Your task to perform on an android device: What's the latest video from Game Informer? Image 0: 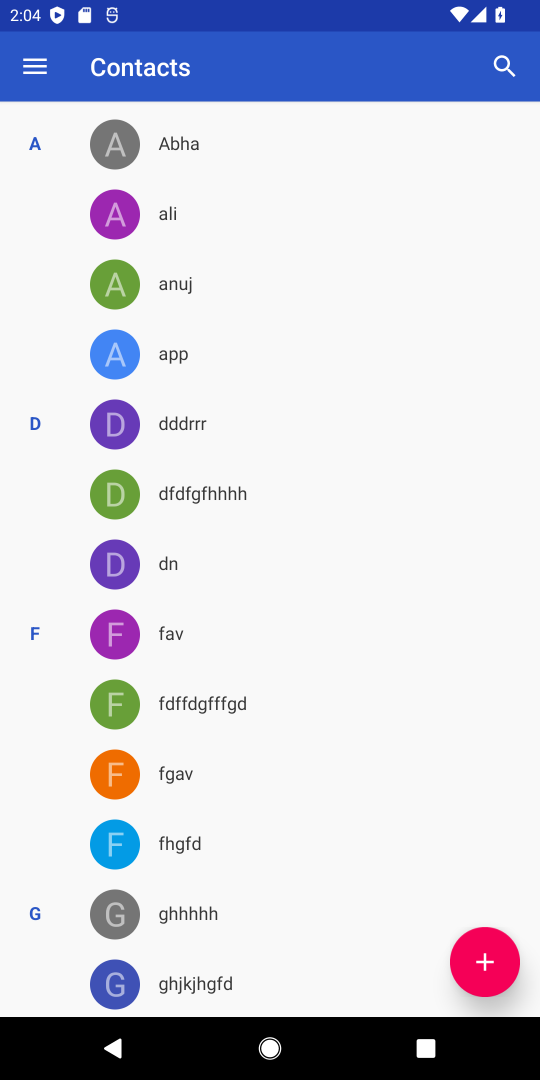
Step 0: press home button
Your task to perform on an android device: What's the latest video from Game Informer? Image 1: 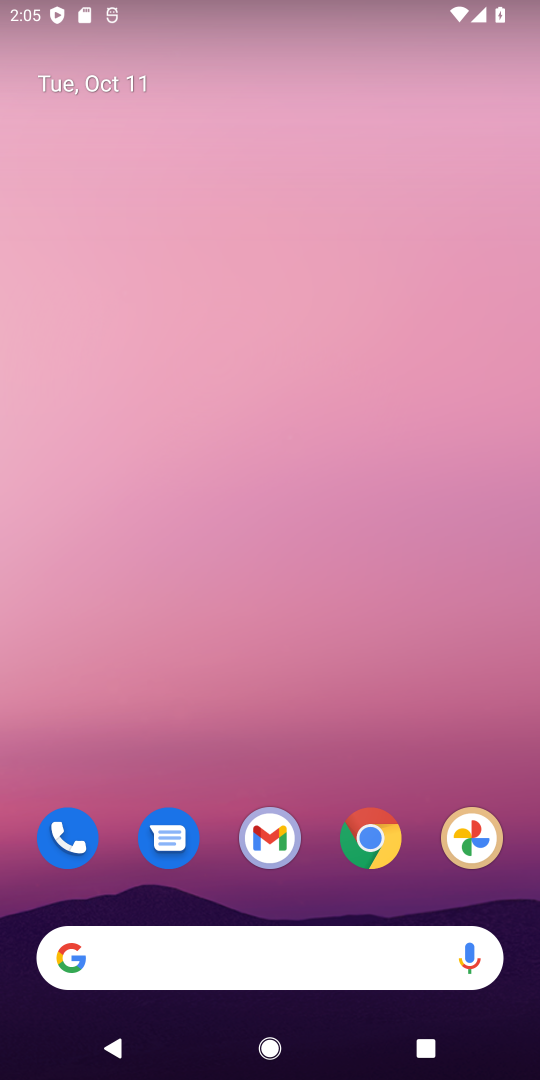
Step 1: click (368, 830)
Your task to perform on an android device: What's the latest video from Game Informer? Image 2: 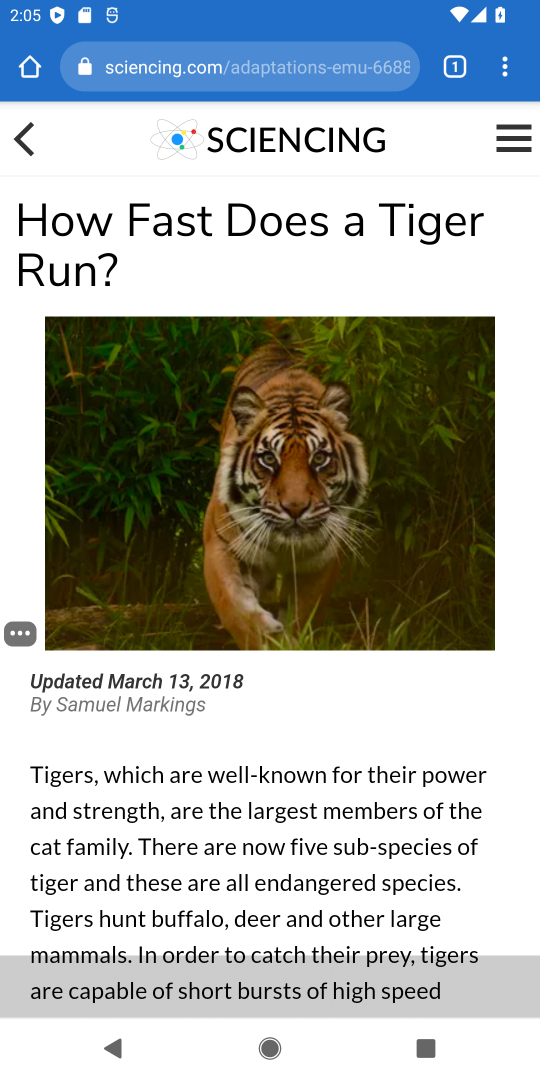
Step 2: click (216, 71)
Your task to perform on an android device: What's the latest video from Game Informer? Image 3: 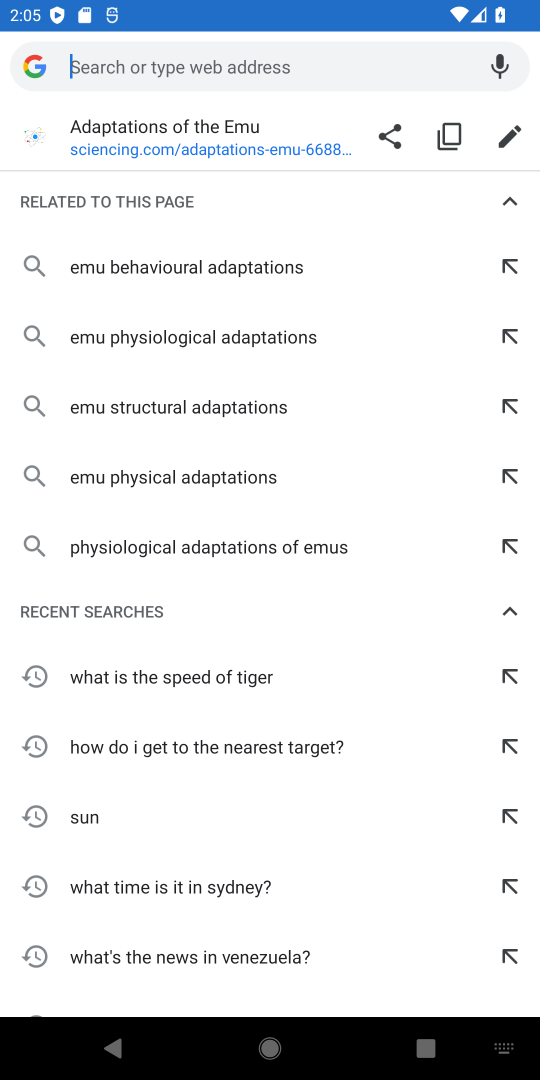
Step 3: type "what is the latest video from game informer"
Your task to perform on an android device: What's the latest video from Game Informer? Image 4: 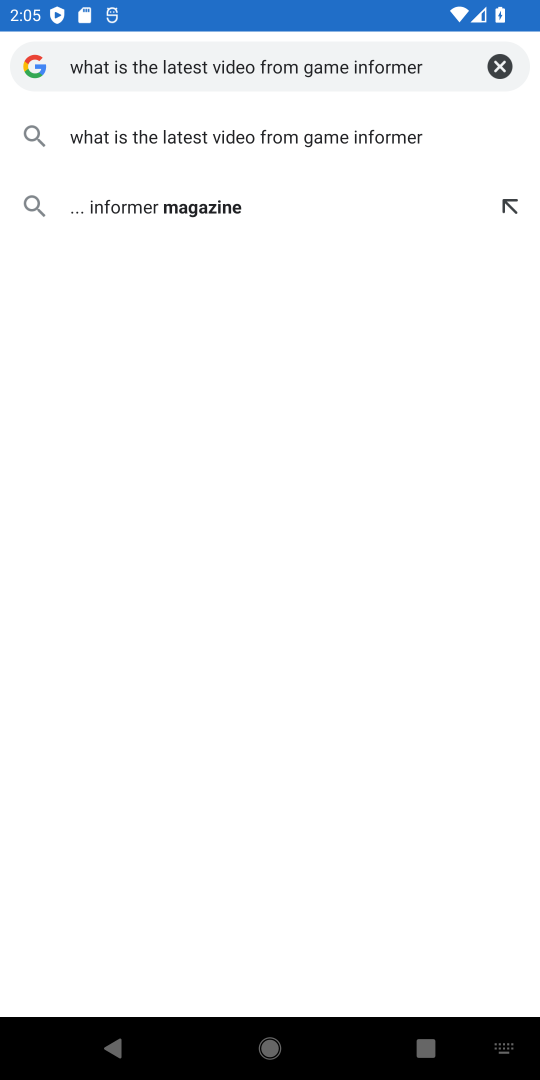
Step 4: click (202, 133)
Your task to perform on an android device: What's the latest video from Game Informer? Image 5: 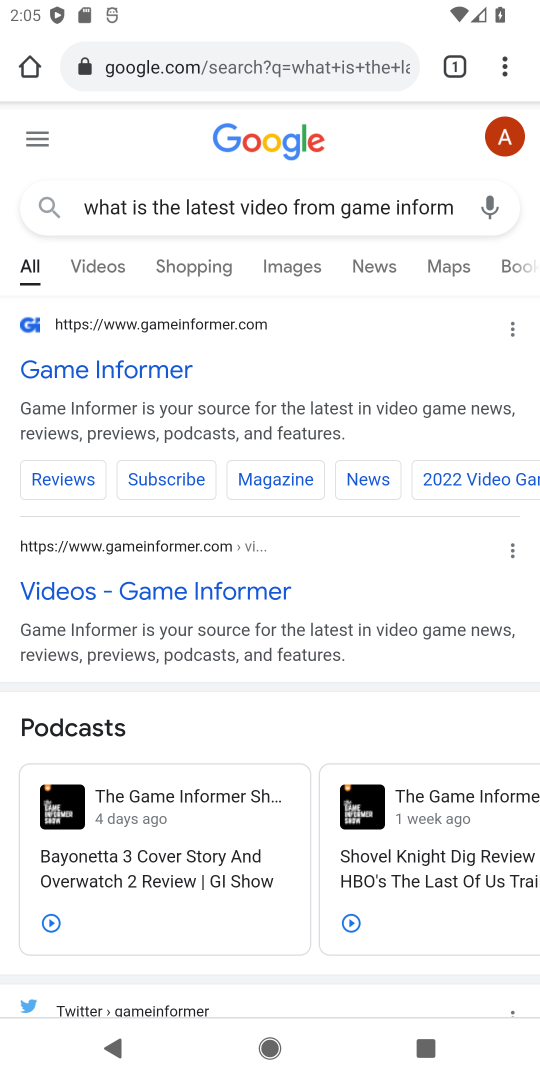
Step 5: drag from (203, 742) to (209, 317)
Your task to perform on an android device: What's the latest video from Game Informer? Image 6: 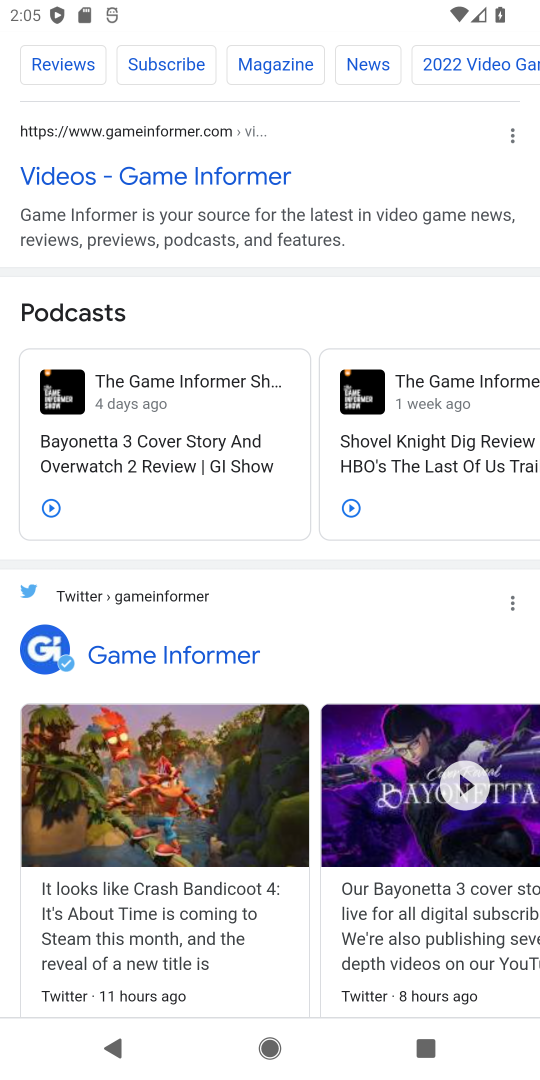
Step 6: click (158, 173)
Your task to perform on an android device: What's the latest video from Game Informer? Image 7: 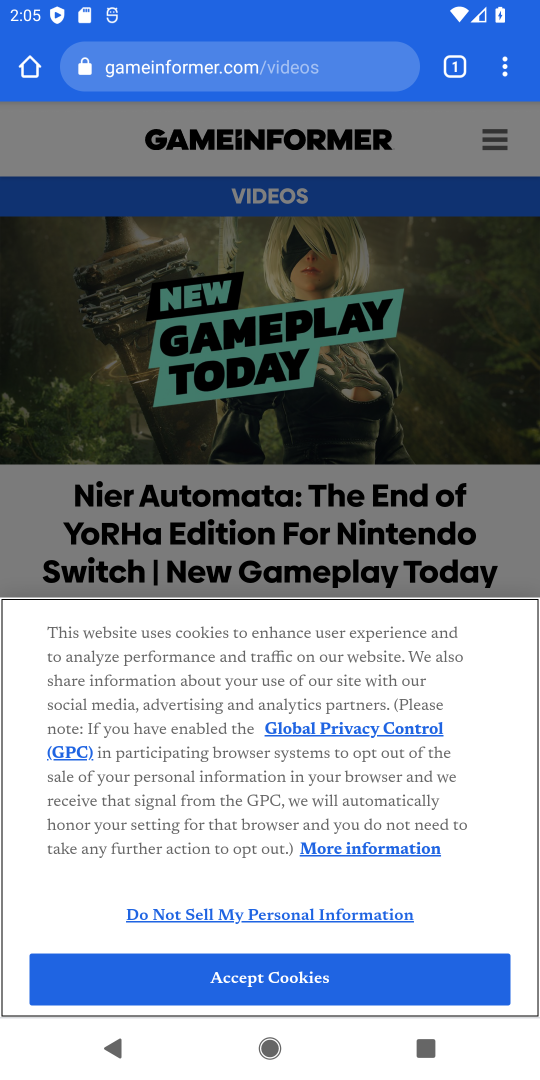
Step 7: click (274, 985)
Your task to perform on an android device: What's the latest video from Game Informer? Image 8: 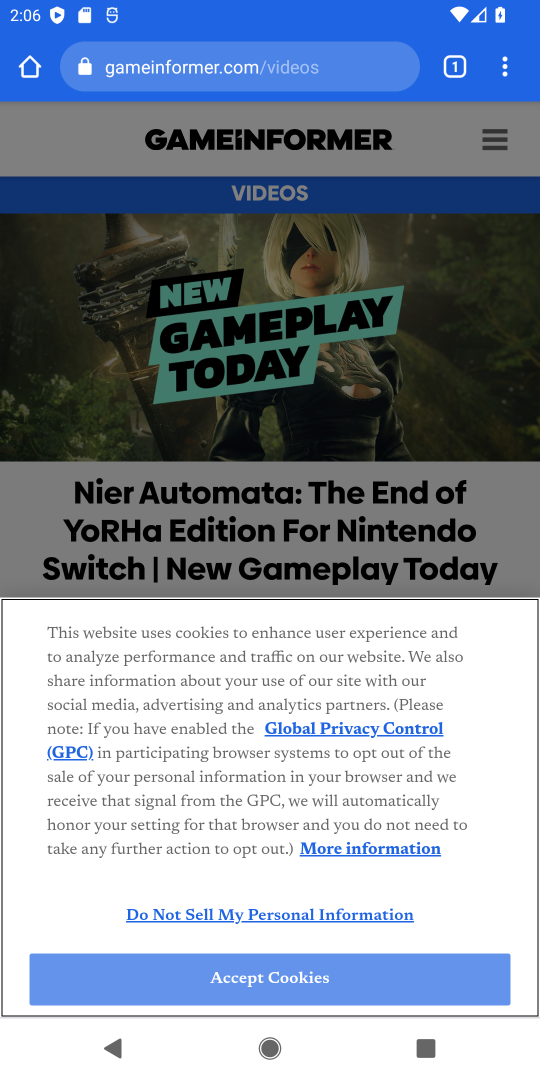
Step 8: click (231, 985)
Your task to perform on an android device: What's the latest video from Game Informer? Image 9: 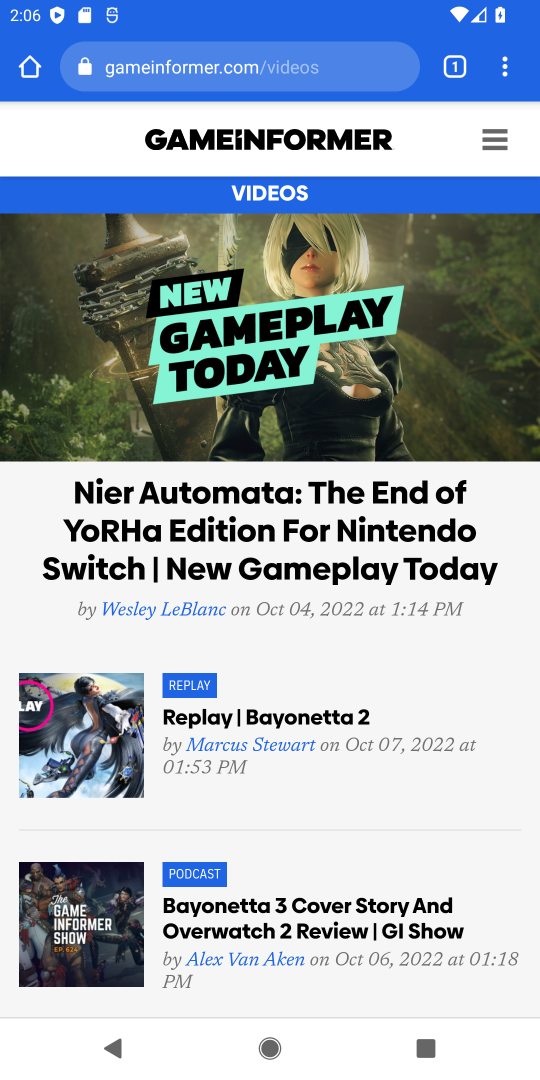
Step 9: drag from (293, 834) to (323, 393)
Your task to perform on an android device: What's the latest video from Game Informer? Image 10: 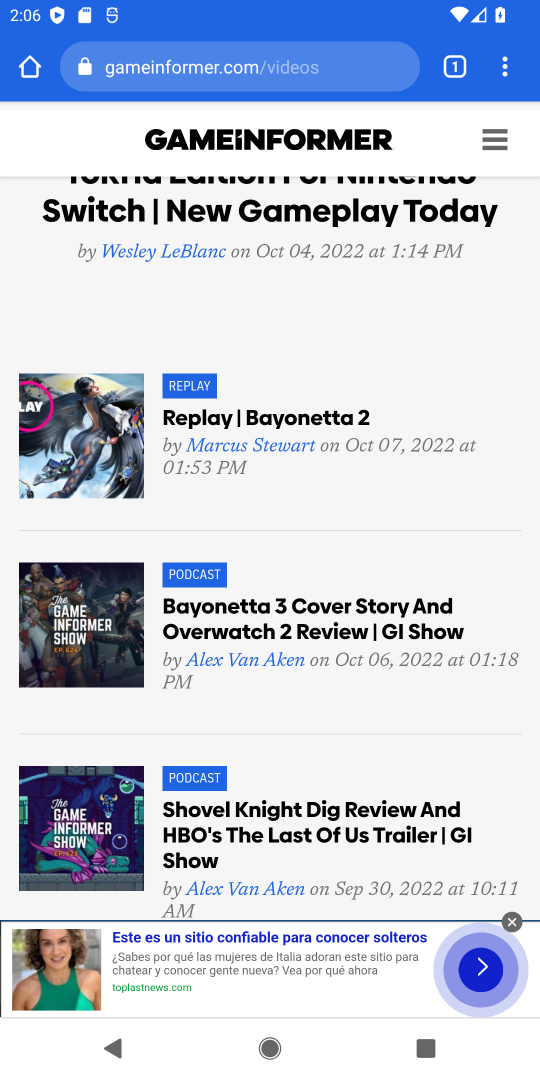
Step 10: drag from (348, 505) to (346, 334)
Your task to perform on an android device: What's the latest video from Game Informer? Image 11: 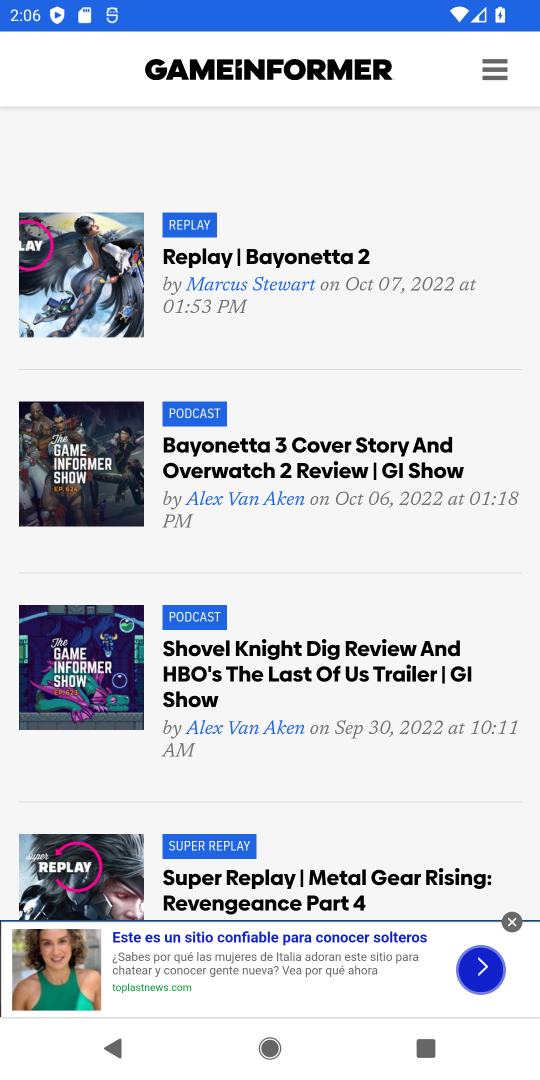
Step 11: drag from (281, 665) to (281, 340)
Your task to perform on an android device: What's the latest video from Game Informer? Image 12: 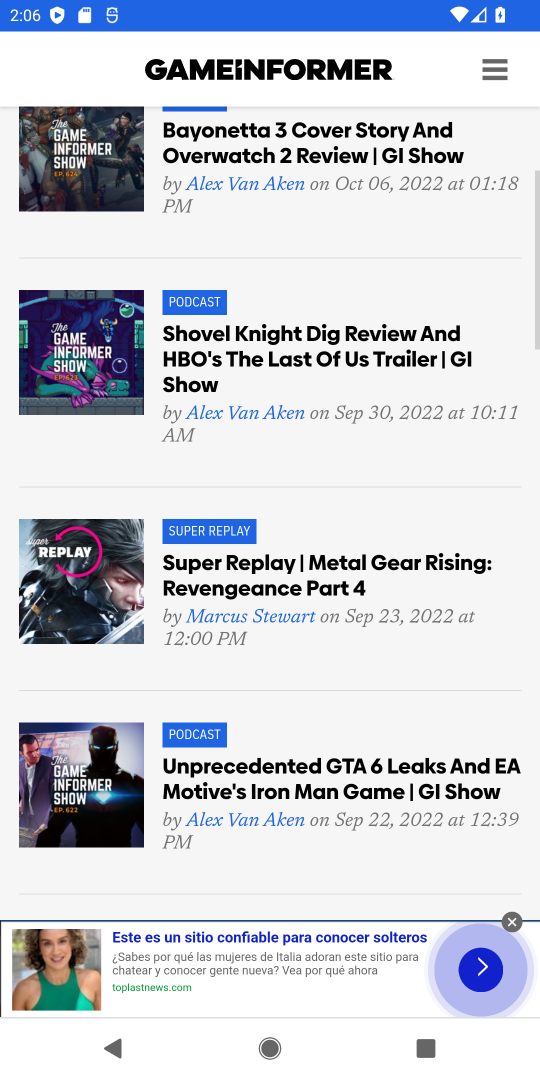
Step 12: click (508, 922)
Your task to perform on an android device: What's the latest video from Game Informer? Image 13: 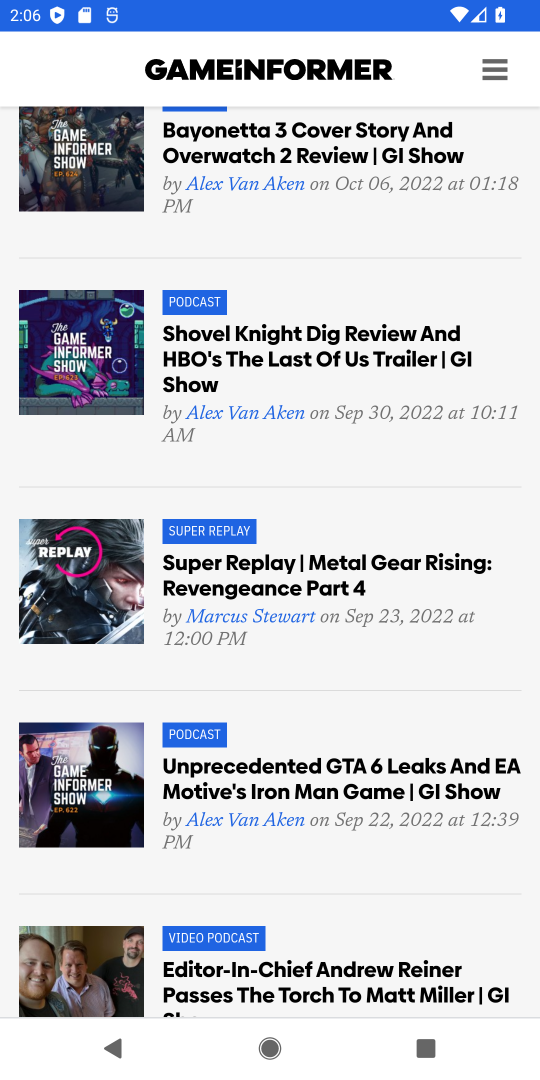
Step 13: task complete